Your task to perform on an android device: Do I have any events today? Image 0: 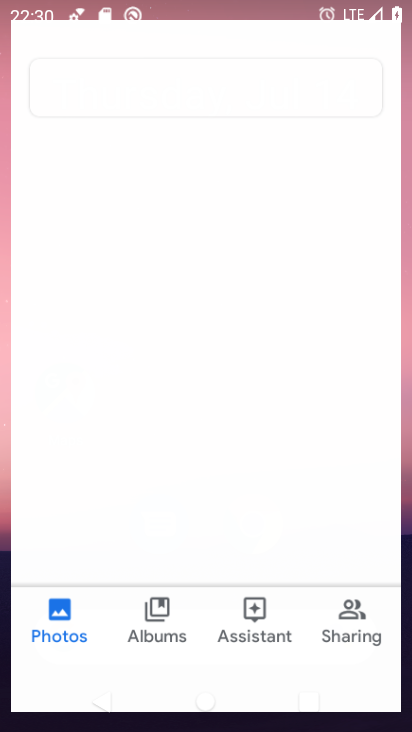
Step 0: drag from (330, 534) to (333, 455)
Your task to perform on an android device: Do I have any events today? Image 1: 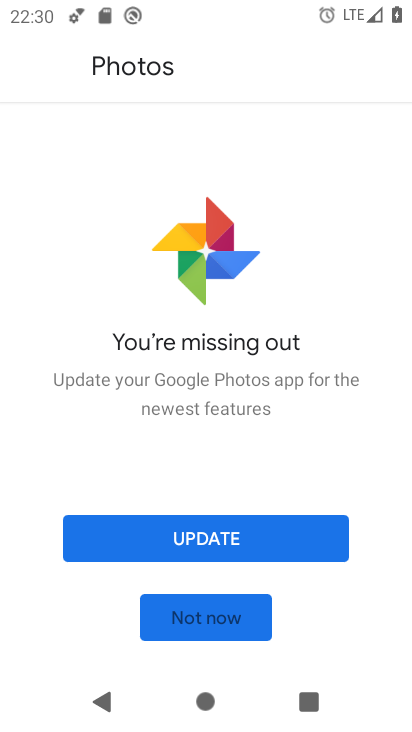
Step 1: press home button
Your task to perform on an android device: Do I have any events today? Image 2: 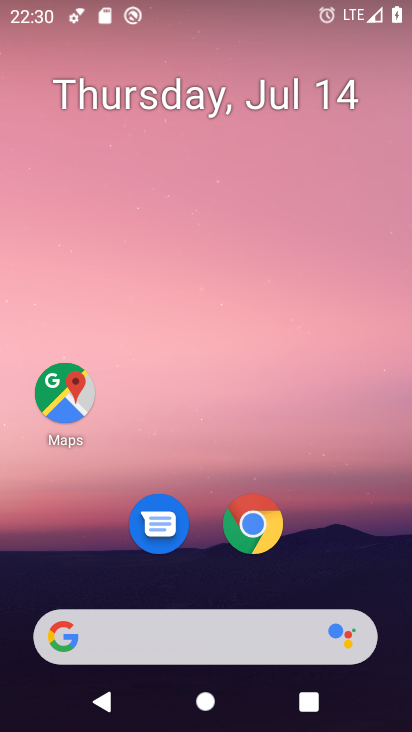
Step 2: drag from (339, 472) to (322, 34)
Your task to perform on an android device: Do I have any events today? Image 3: 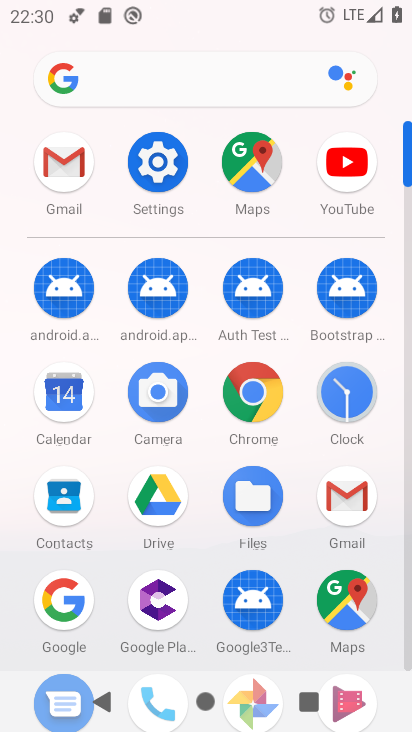
Step 3: click (50, 393)
Your task to perform on an android device: Do I have any events today? Image 4: 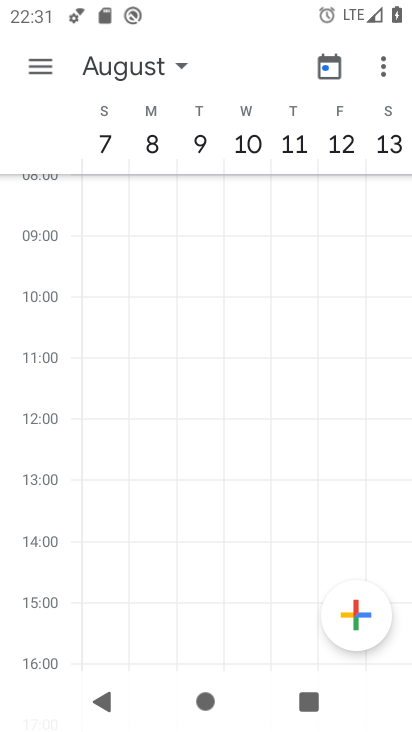
Step 4: drag from (107, 258) to (381, 276)
Your task to perform on an android device: Do I have any events today? Image 5: 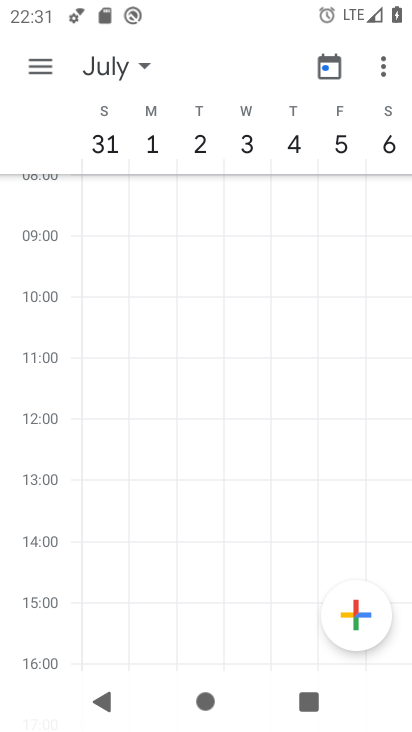
Step 5: drag from (102, 257) to (400, 293)
Your task to perform on an android device: Do I have any events today? Image 6: 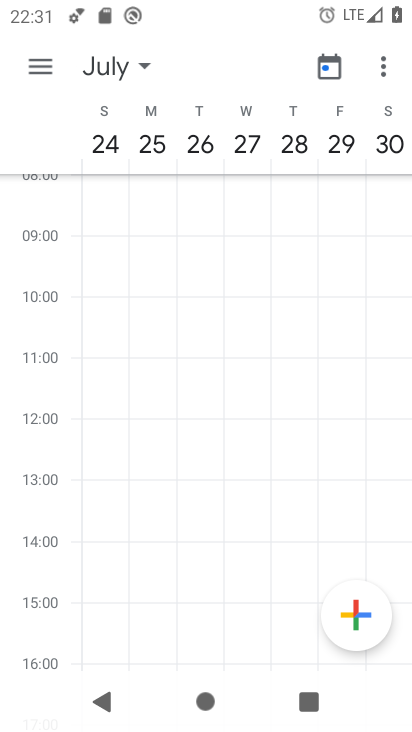
Step 6: drag from (101, 245) to (405, 262)
Your task to perform on an android device: Do I have any events today? Image 7: 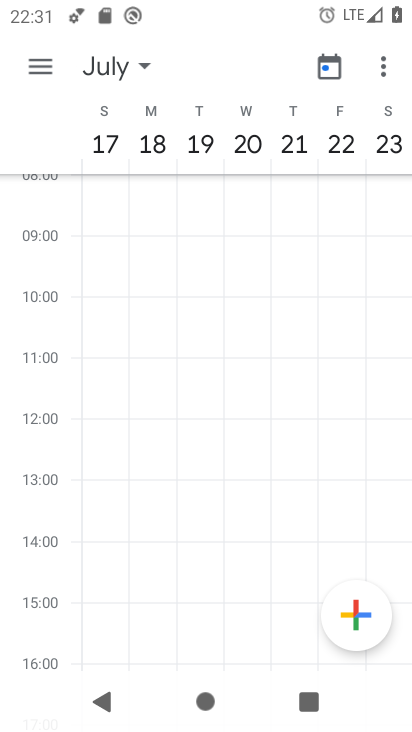
Step 7: drag from (104, 263) to (411, 285)
Your task to perform on an android device: Do I have any events today? Image 8: 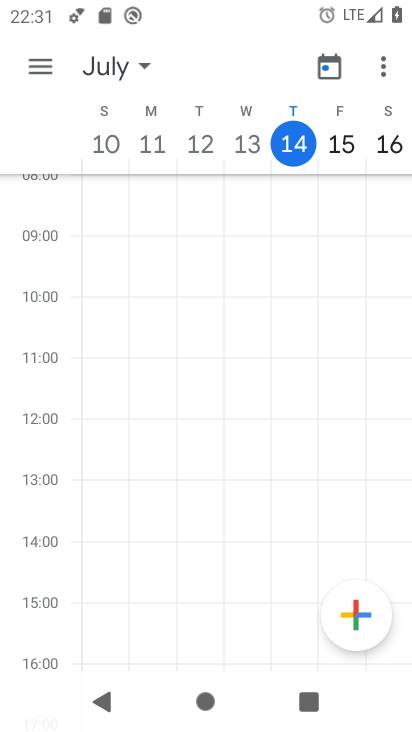
Step 8: click (308, 139)
Your task to perform on an android device: Do I have any events today? Image 9: 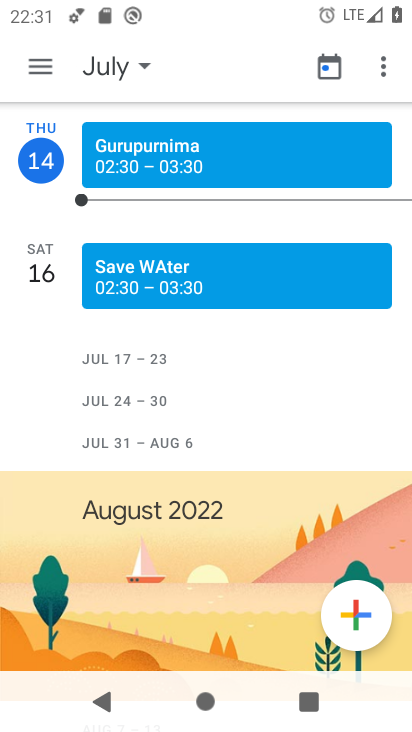
Step 9: task complete